Your task to perform on an android device: Go to Android settings Image 0: 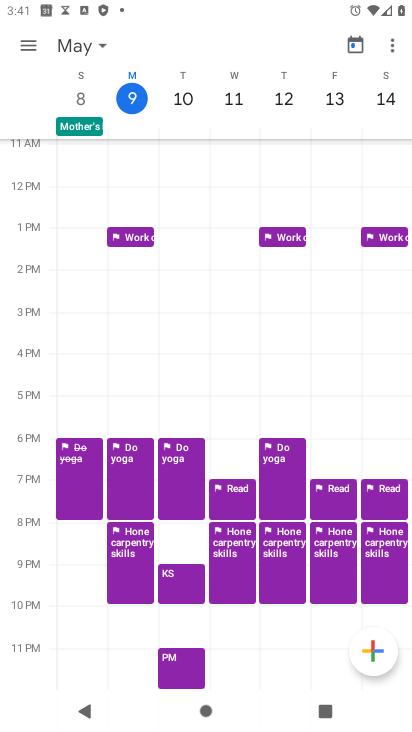
Step 0: press home button
Your task to perform on an android device: Go to Android settings Image 1: 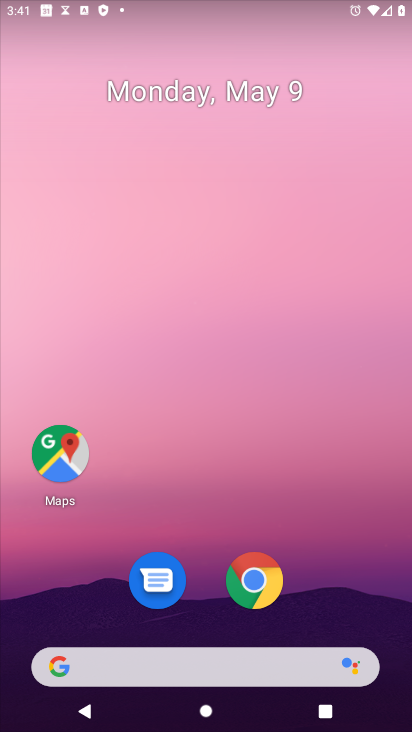
Step 1: drag from (303, 526) to (236, 66)
Your task to perform on an android device: Go to Android settings Image 2: 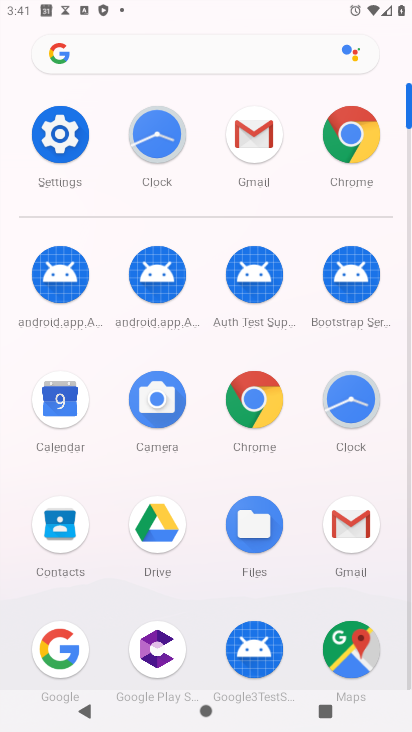
Step 2: click (67, 141)
Your task to perform on an android device: Go to Android settings Image 3: 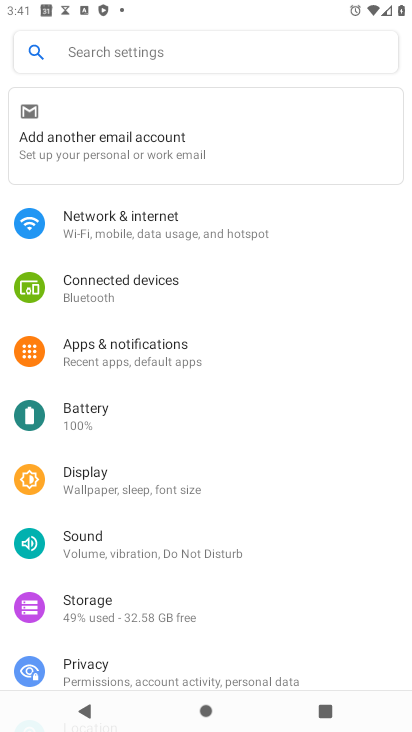
Step 3: drag from (269, 637) to (286, 41)
Your task to perform on an android device: Go to Android settings Image 4: 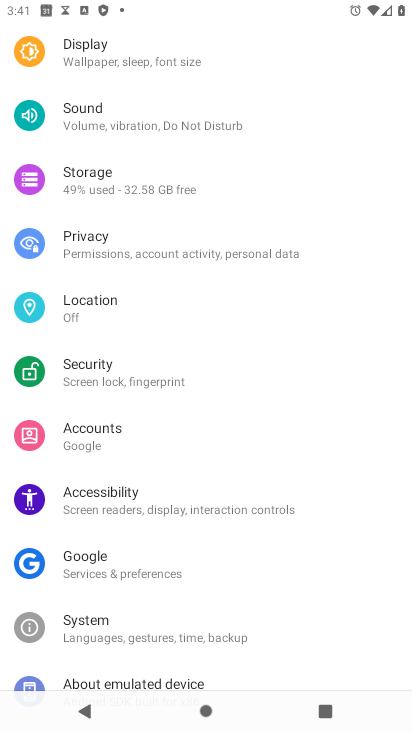
Step 4: drag from (203, 555) to (225, 127)
Your task to perform on an android device: Go to Android settings Image 5: 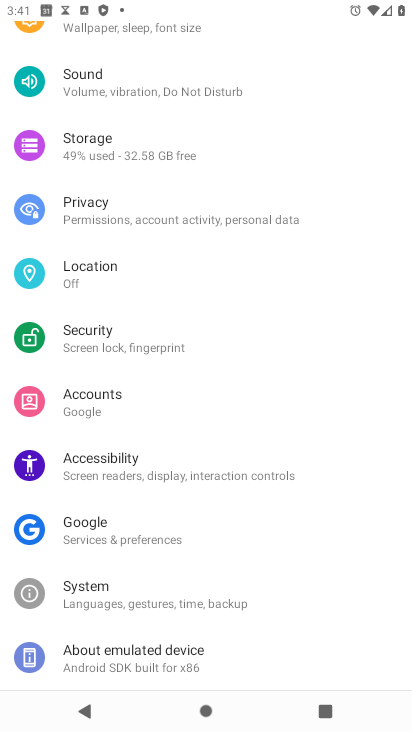
Step 5: click (188, 660)
Your task to perform on an android device: Go to Android settings Image 6: 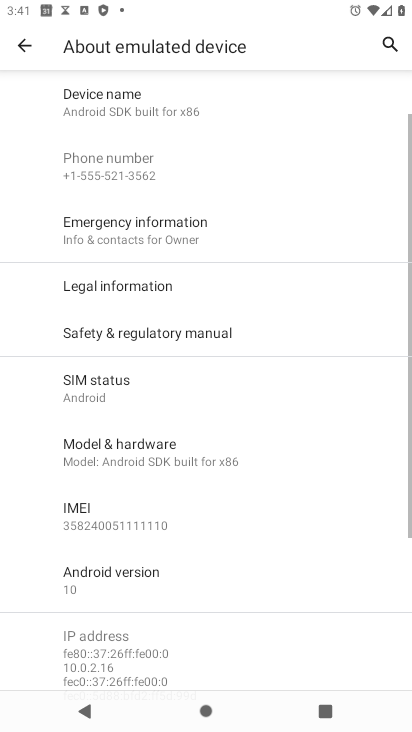
Step 6: click (171, 581)
Your task to perform on an android device: Go to Android settings Image 7: 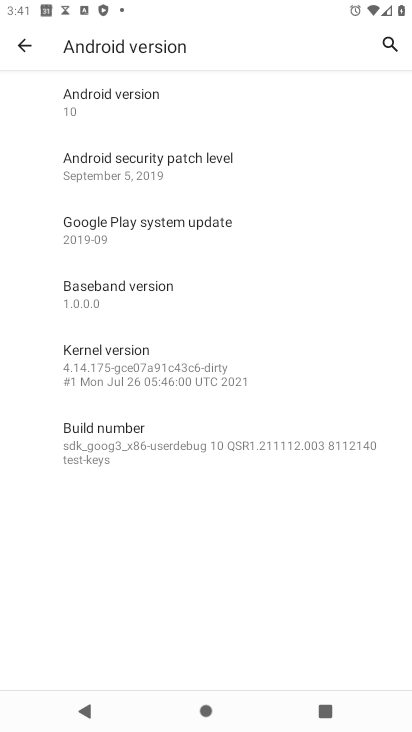
Step 7: task complete